Your task to perform on an android device: Go to CNN.com Image 0: 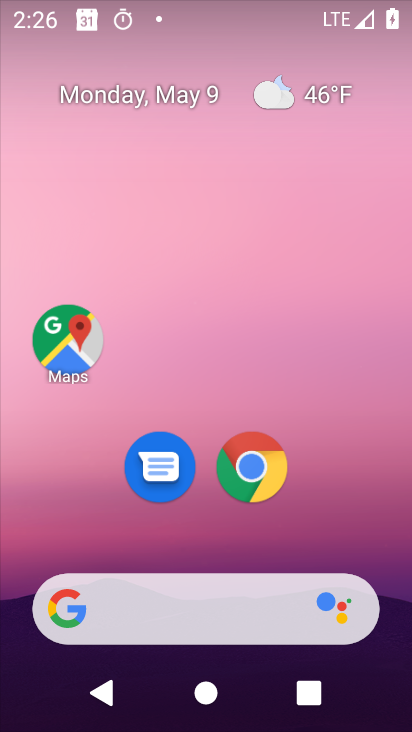
Step 0: click (353, 500)
Your task to perform on an android device: Go to CNN.com Image 1: 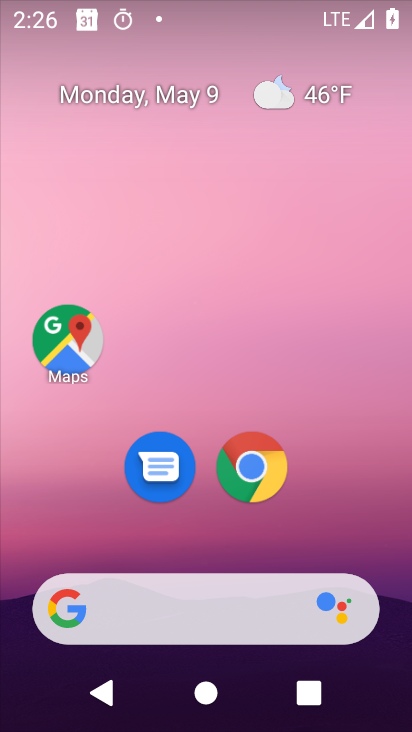
Step 1: click (256, 475)
Your task to perform on an android device: Go to CNN.com Image 2: 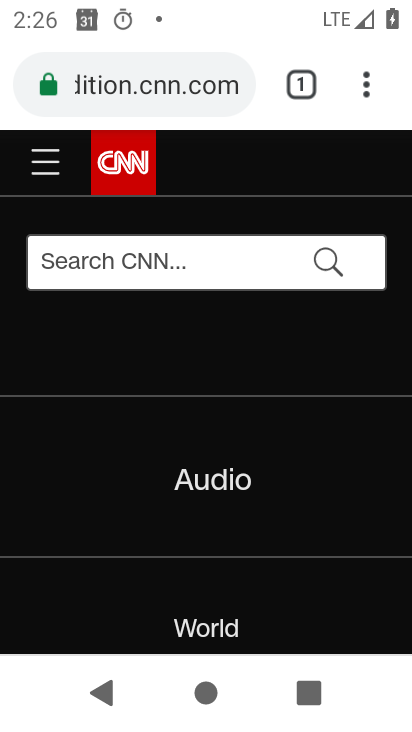
Step 2: task complete